Your task to perform on an android device: install app "eBay: The shopping marketplace" Image 0: 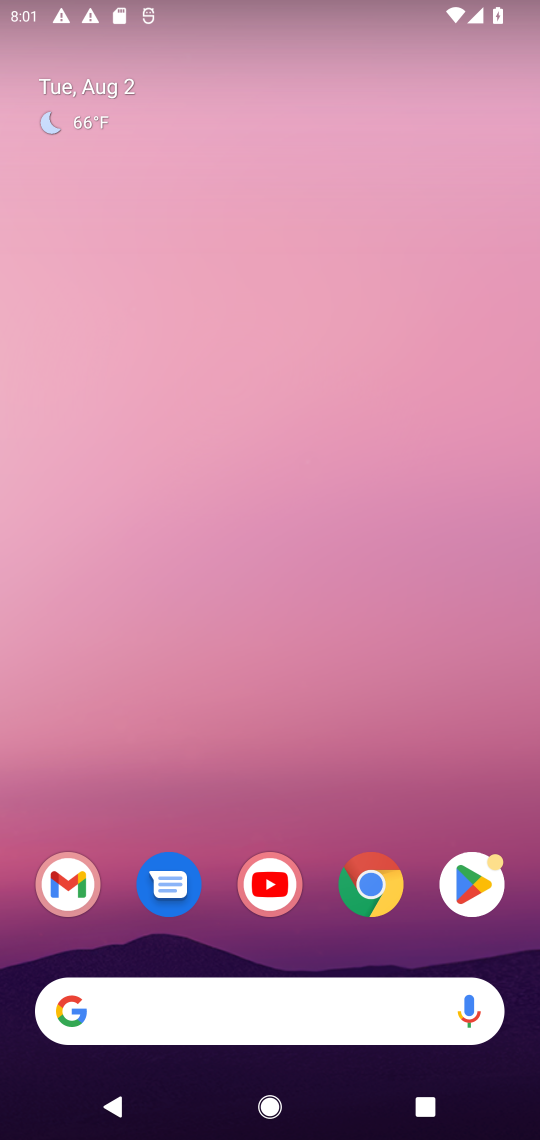
Step 0: press home button
Your task to perform on an android device: install app "eBay: The shopping marketplace" Image 1: 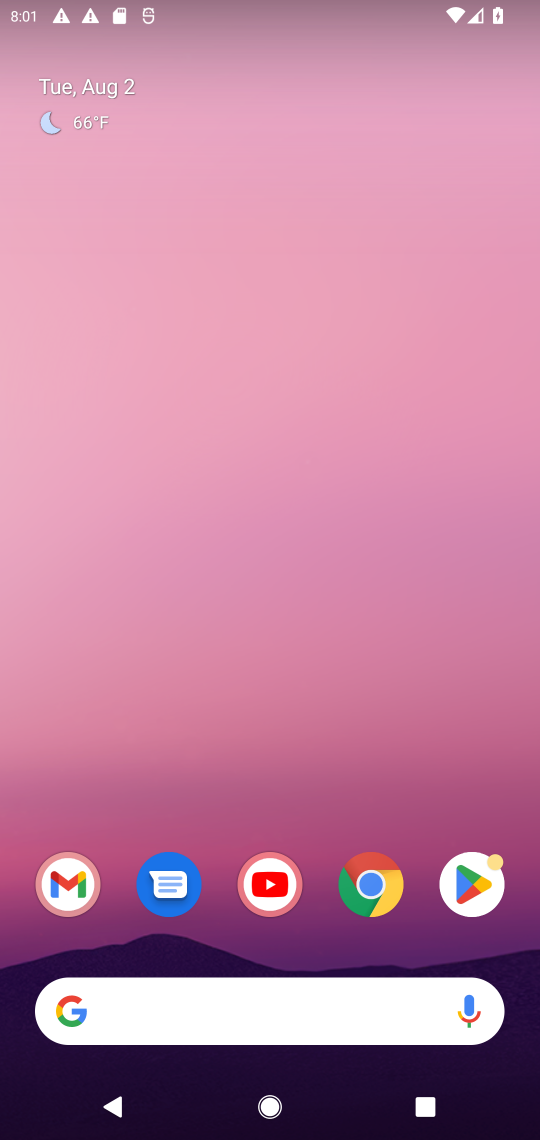
Step 1: click (491, 877)
Your task to perform on an android device: install app "eBay: The shopping marketplace" Image 2: 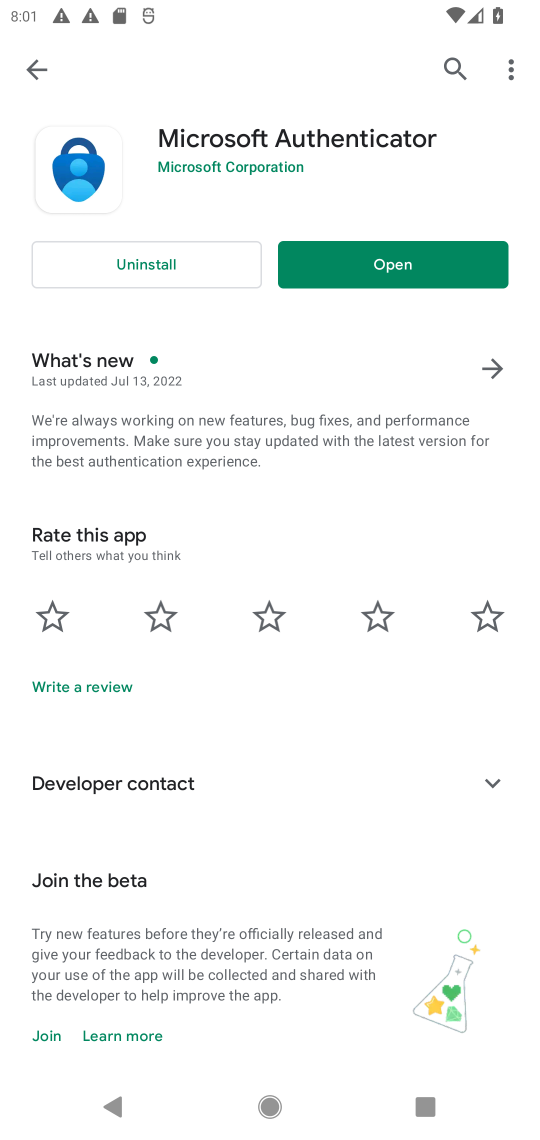
Step 2: click (443, 60)
Your task to perform on an android device: install app "eBay: The shopping marketplace" Image 3: 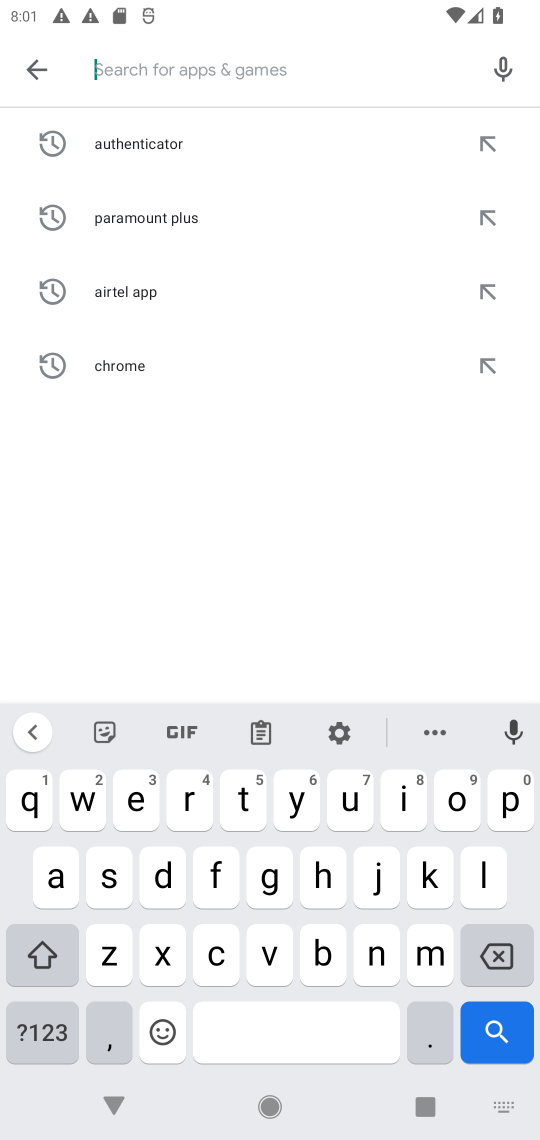
Step 3: click (135, 797)
Your task to perform on an android device: install app "eBay: The shopping marketplace" Image 4: 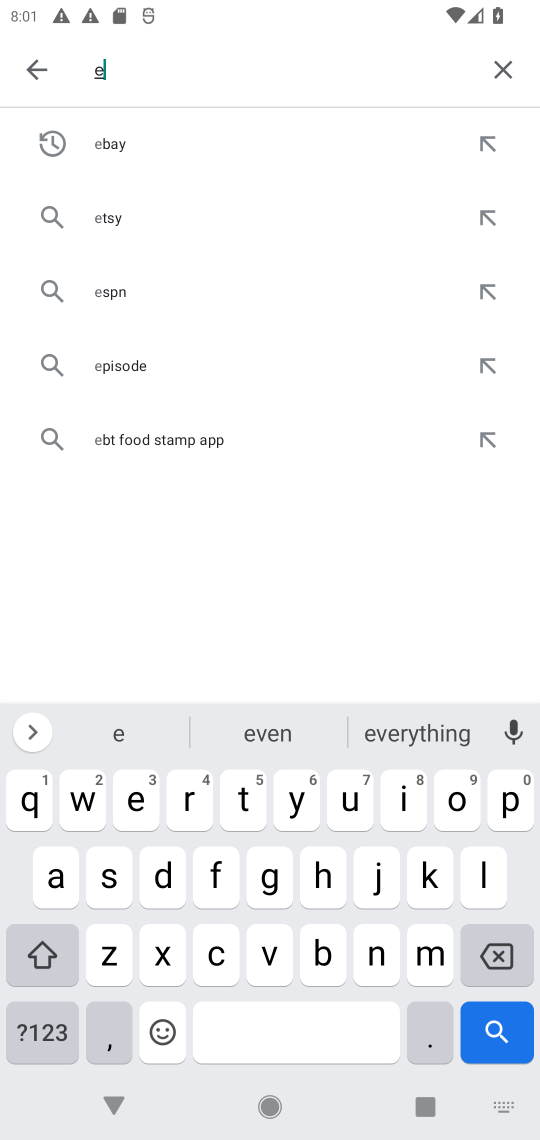
Step 4: click (331, 961)
Your task to perform on an android device: install app "eBay: The shopping marketplace" Image 5: 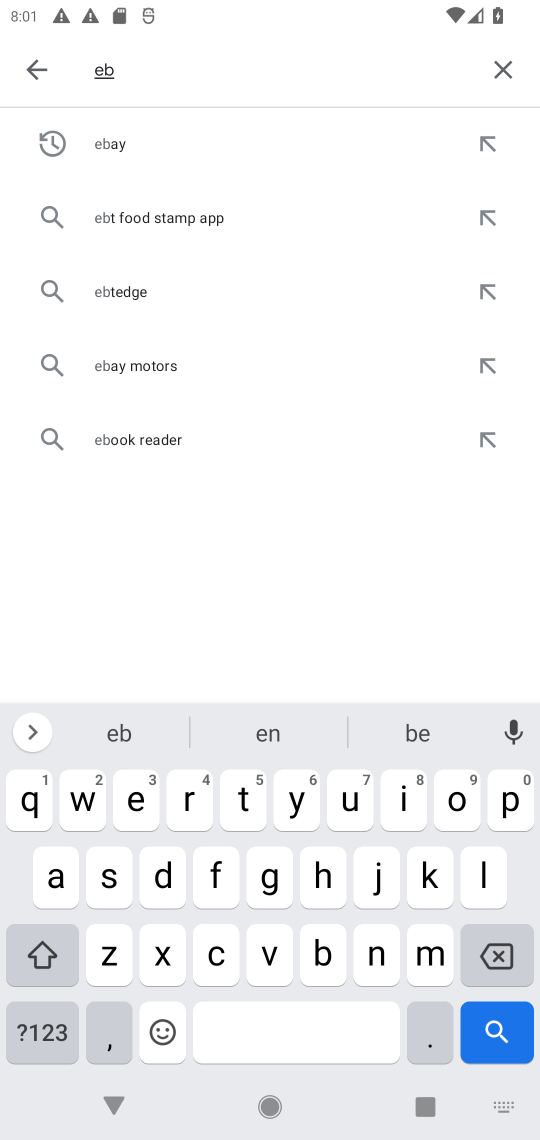
Step 5: click (135, 136)
Your task to perform on an android device: install app "eBay: The shopping marketplace" Image 6: 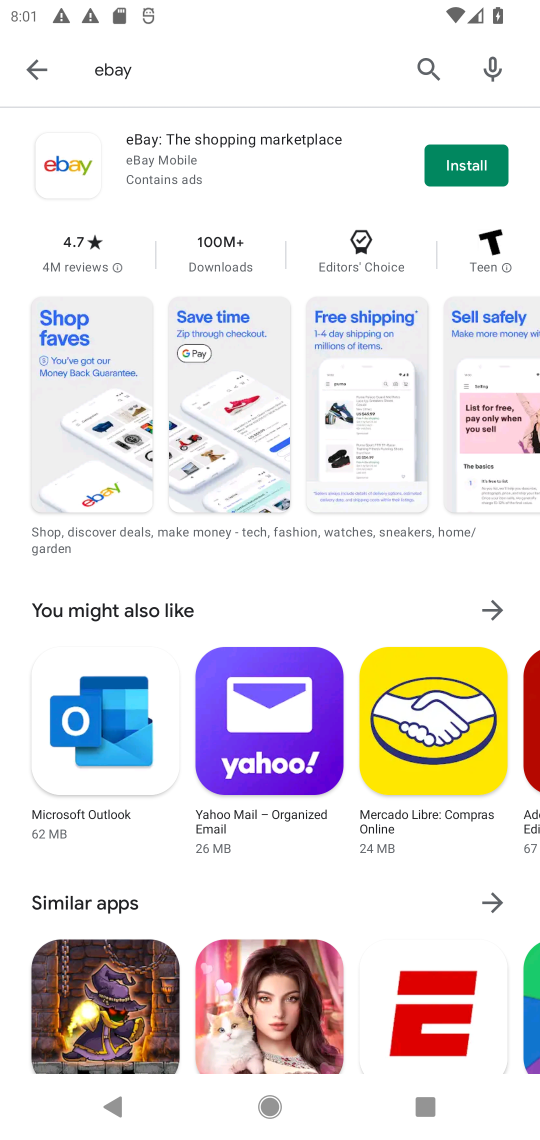
Step 6: click (469, 169)
Your task to perform on an android device: install app "eBay: The shopping marketplace" Image 7: 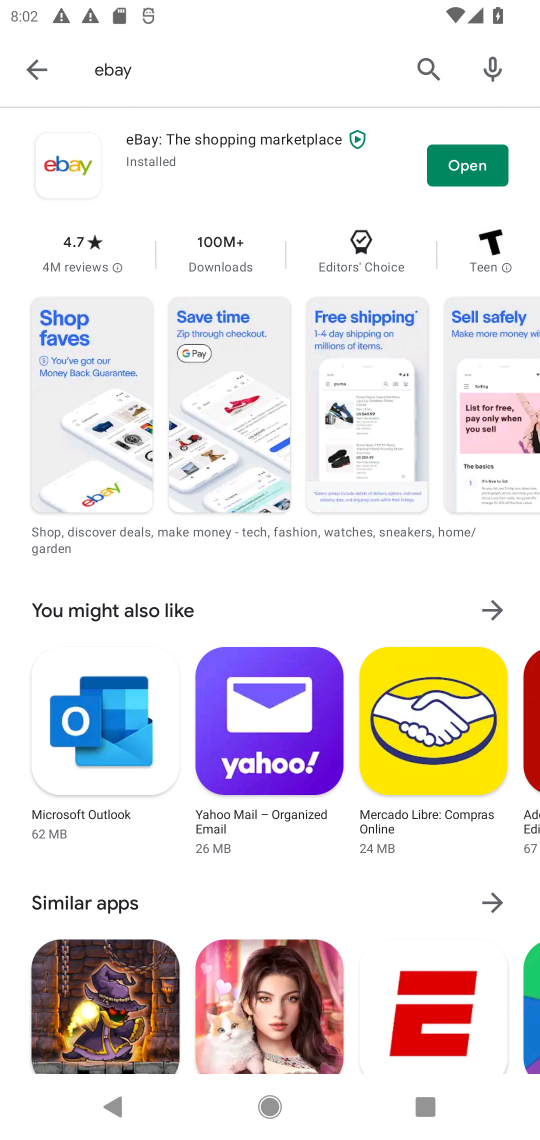
Step 7: task complete